Your task to perform on an android device: Search for Mexican restaurants on Maps Image 0: 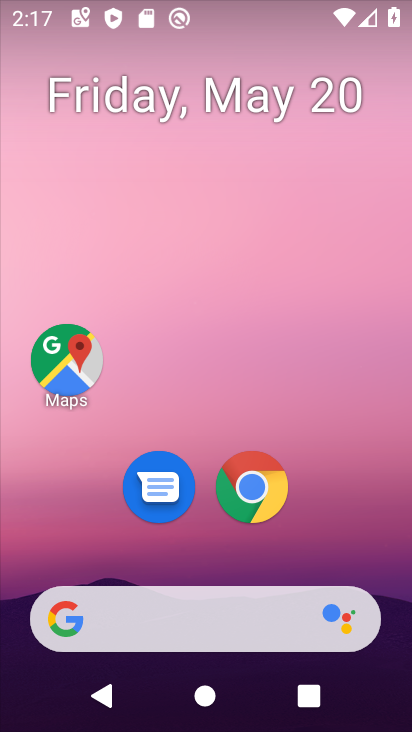
Step 0: drag from (365, 502) to (386, 66)
Your task to perform on an android device: Search for Mexican restaurants on Maps Image 1: 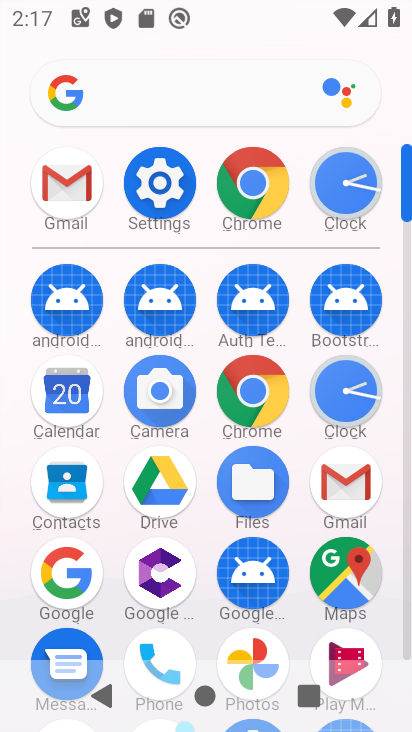
Step 1: click (338, 588)
Your task to perform on an android device: Search for Mexican restaurants on Maps Image 2: 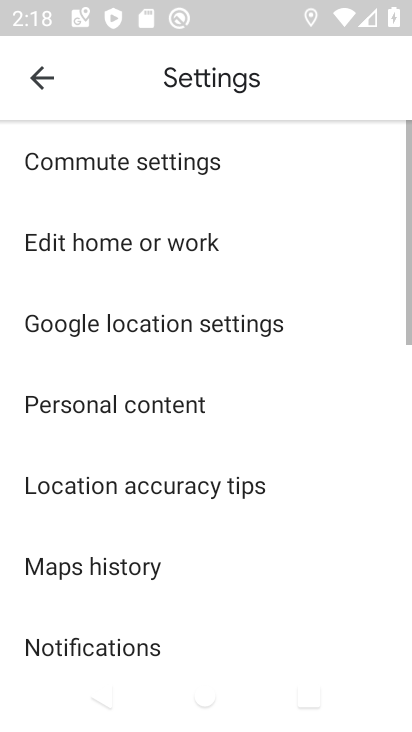
Step 2: click (52, 74)
Your task to perform on an android device: Search for Mexican restaurants on Maps Image 3: 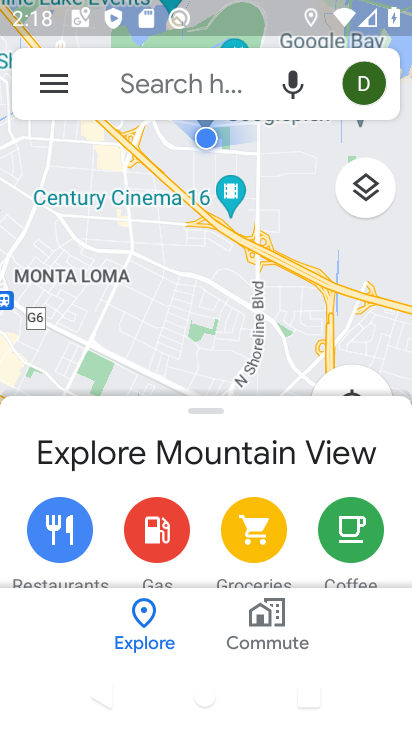
Step 3: click (188, 64)
Your task to perform on an android device: Search for Mexican restaurants on Maps Image 4: 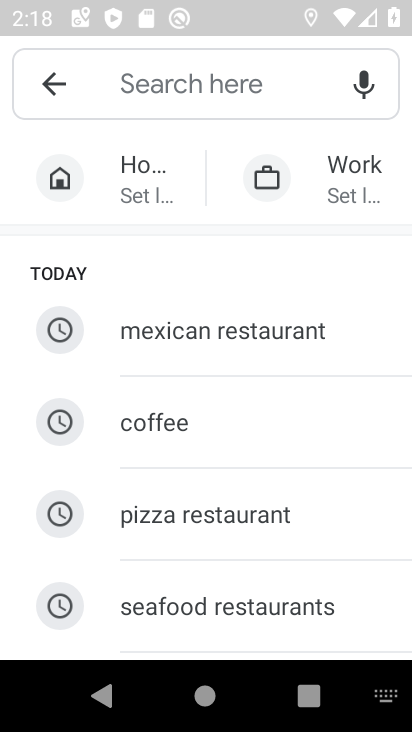
Step 4: click (211, 306)
Your task to perform on an android device: Search for Mexican restaurants on Maps Image 5: 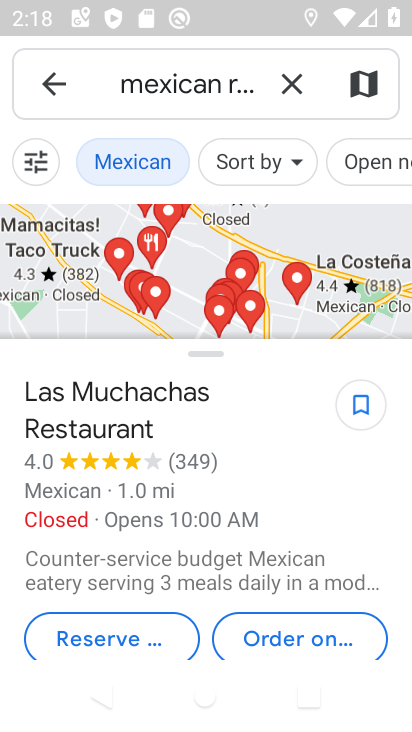
Step 5: task complete